Your task to perform on an android device: turn on the 12-hour format for clock Image 0: 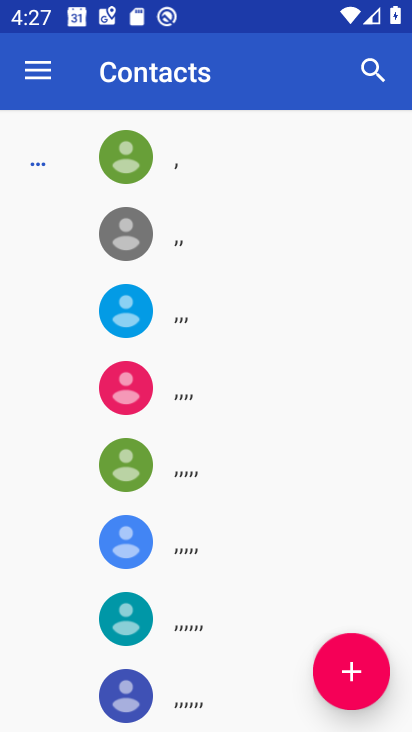
Step 0: press home button
Your task to perform on an android device: turn on the 12-hour format for clock Image 1: 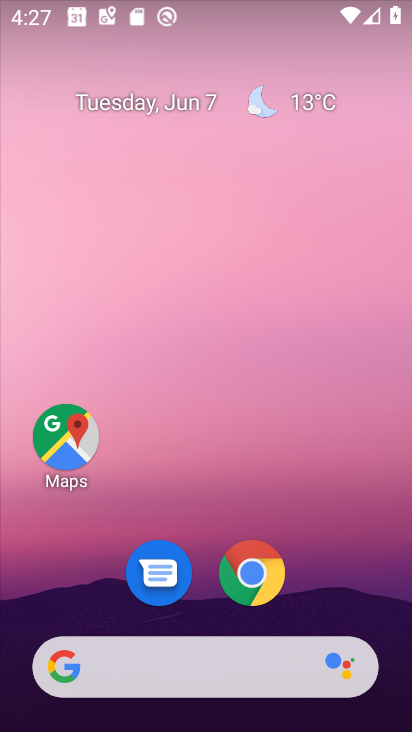
Step 1: drag from (393, 602) to (287, 89)
Your task to perform on an android device: turn on the 12-hour format for clock Image 2: 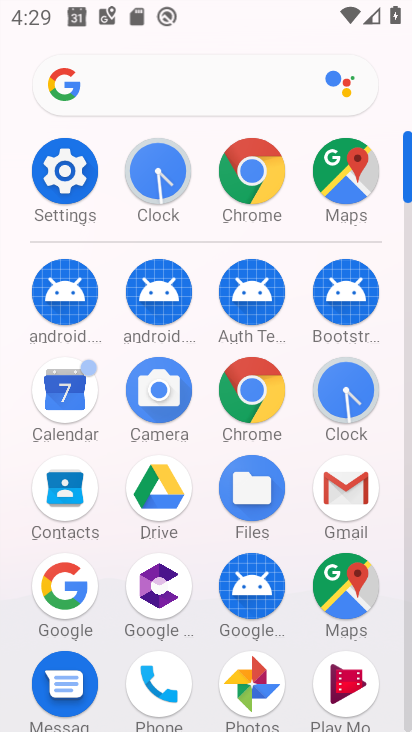
Step 2: click (351, 389)
Your task to perform on an android device: turn on the 12-hour format for clock Image 3: 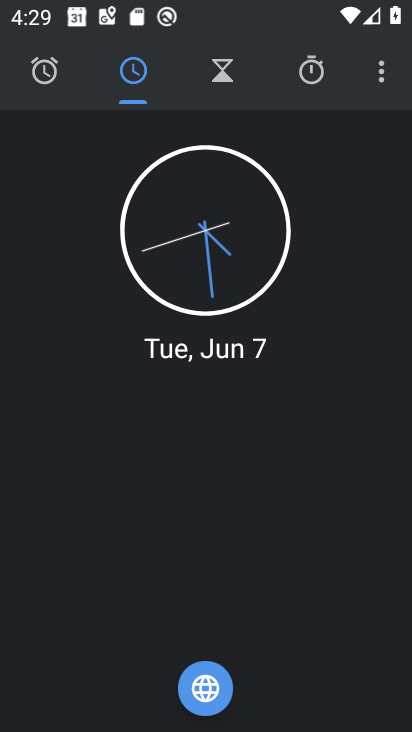
Step 3: click (389, 57)
Your task to perform on an android device: turn on the 12-hour format for clock Image 4: 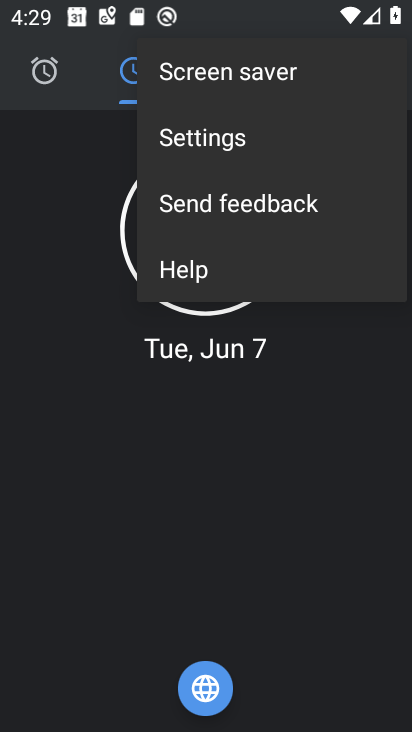
Step 4: click (232, 140)
Your task to perform on an android device: turn on the 12-hour format for clock Image 5: 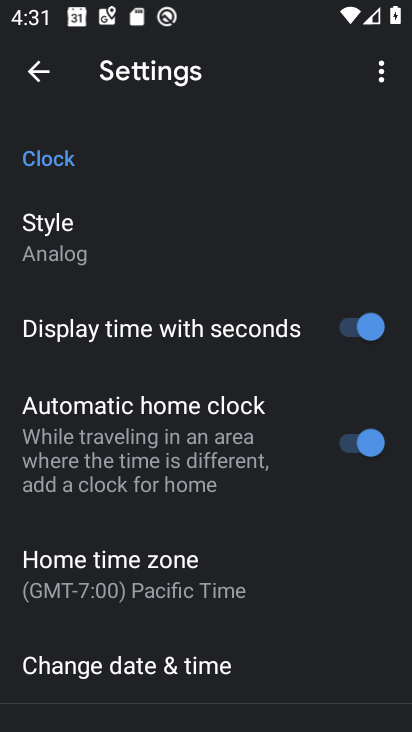
Step 5: drag from (292, 624) to (264, 226)
Your task to perform on an android device: turn on the 12-hour format for clock Image 6: 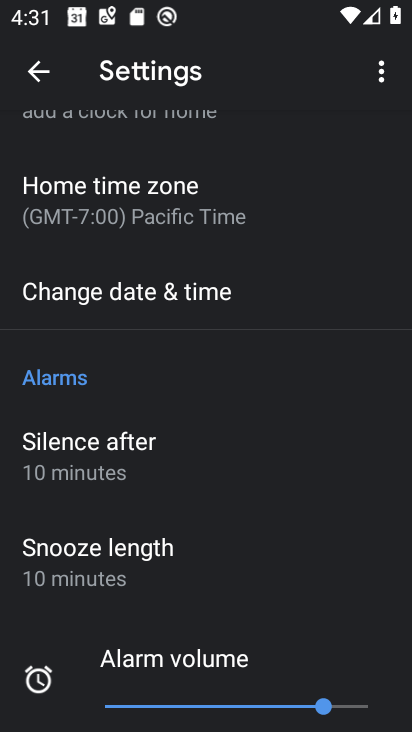
Step 6: click (234, 290)
Your task to perform on an android device: turn on the 12-hour format for clock Image 7: 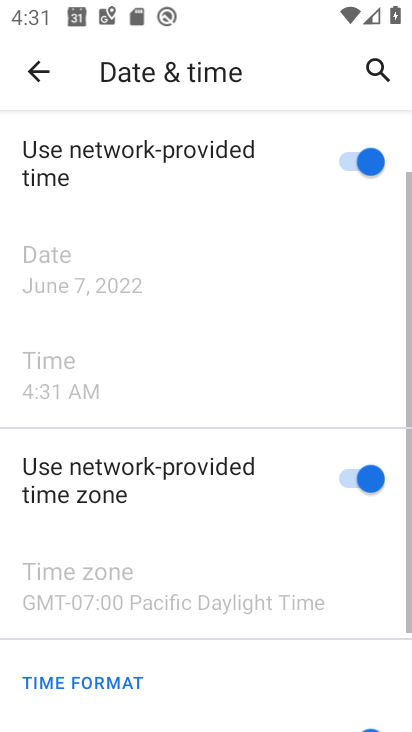
Step 7: drag from (242, 537) to (160, 75)
Your task to perform on an android device: turn on the 12-hour format for clock Image 8: 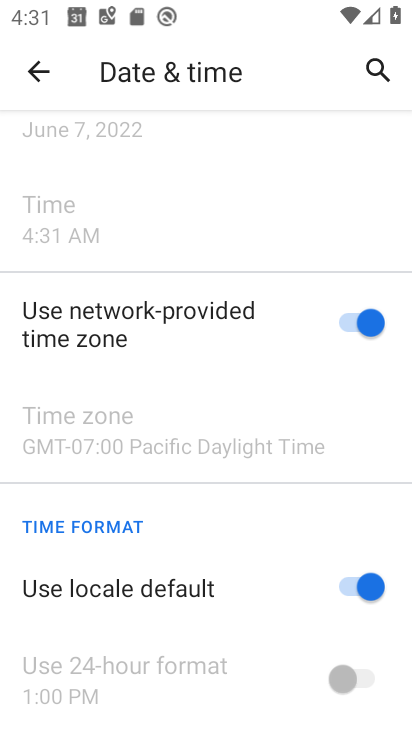
Step 8: click (253, 605)
Your task to perform on an android device: turn on the 12-hour format for clock Image 9: 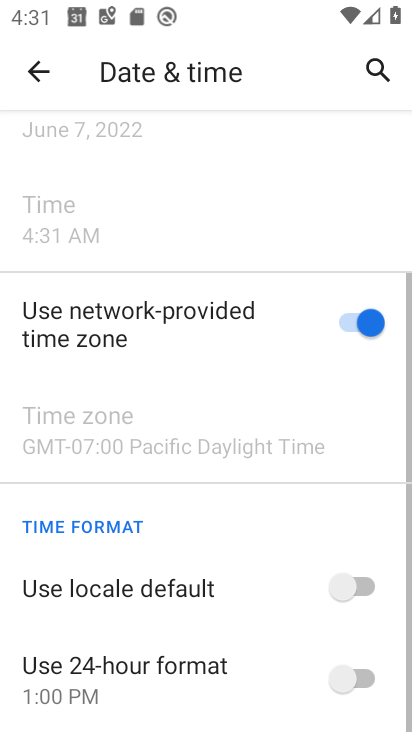
Step 9: click (228, 674)
Your task to perform on an android device: turn on the 12-hour format for clock Image 10: 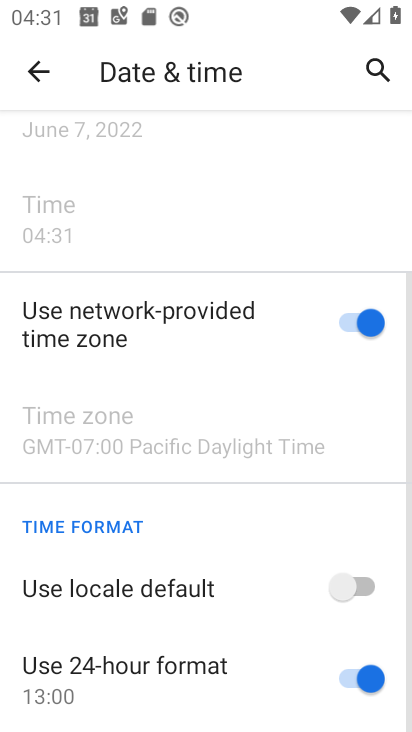
Step 10: task complete